Your task to perform on an android device: Go to display settings Image 0: 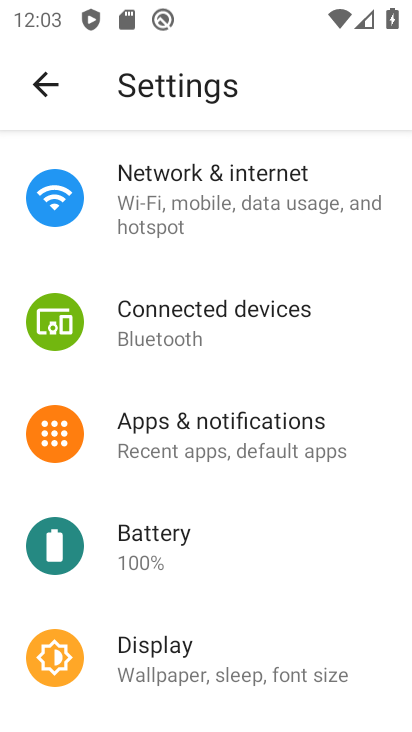
Step 0: drag from (271, 550) to (289, 293)
Your task to perform on an android device: Go to display settings Image 1: 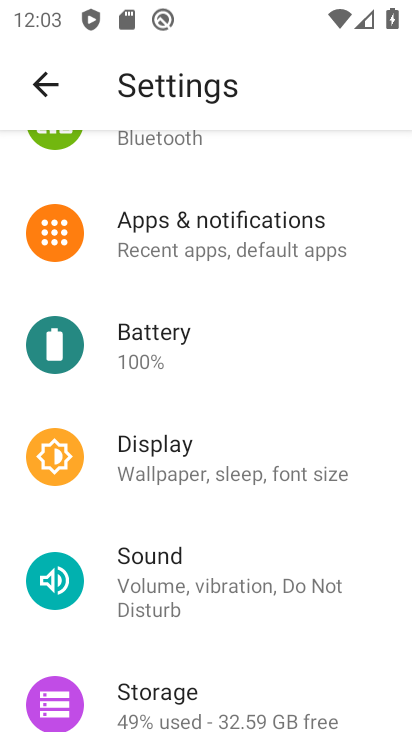
Step 1: click (185, 455)
Your task to perform on an android device: Go to display settings Image 2: 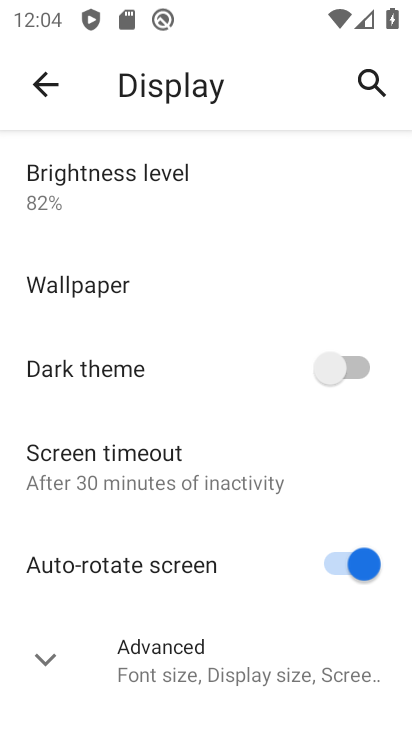
Step 2: task complete